Your task to perform on an android device: toggle translation in the chrome app Image 0: 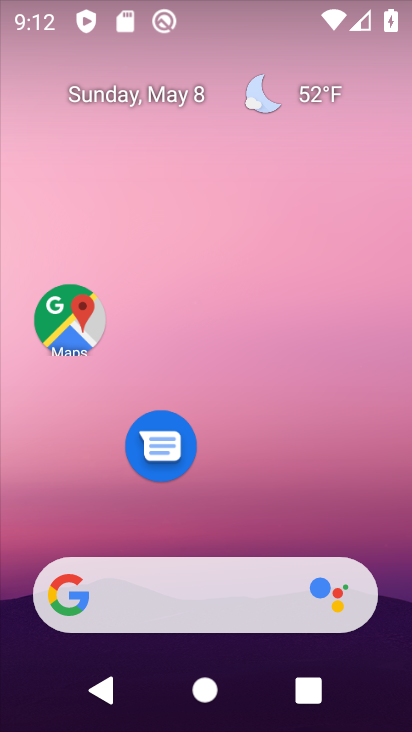
Step 0: drag from (291, 485) to (337, 0)
Your task to perform on an android device: toggle translation in the chrome app Image 1: 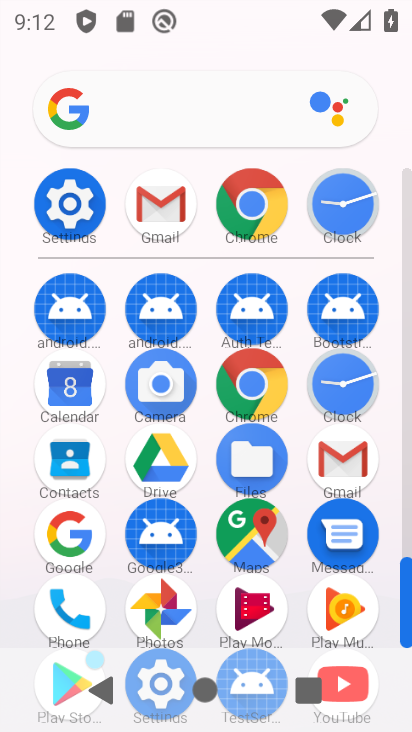
Step 1: click (266, 212)
Your task to perform on an android device: toggle translation in the chrome app Image 2: 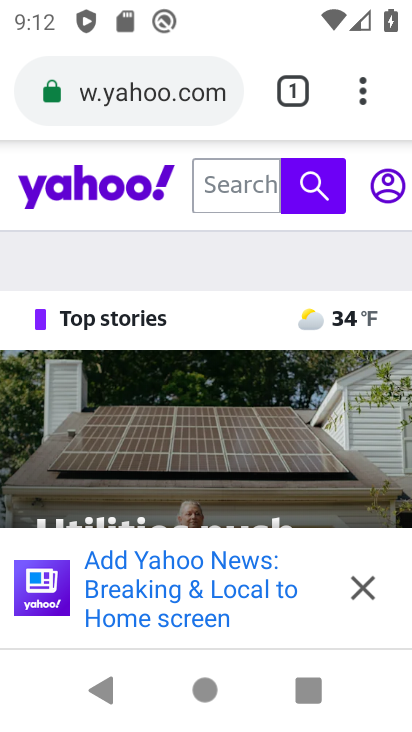
Step 2: drag from (358, 74) to (166, 467)
Your task to perform on an android device: toggle translation in the chrome app Image 3: 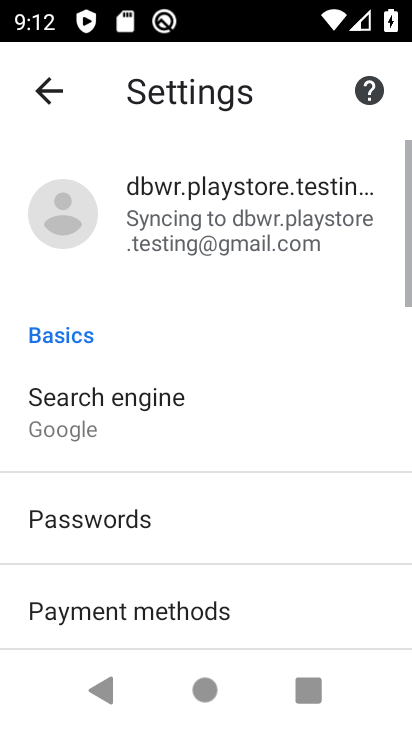
Step 3: drag from (215, 549) to (229, 147)
Your task to perform on an android device: toggle translation in the chrome app Image 4: 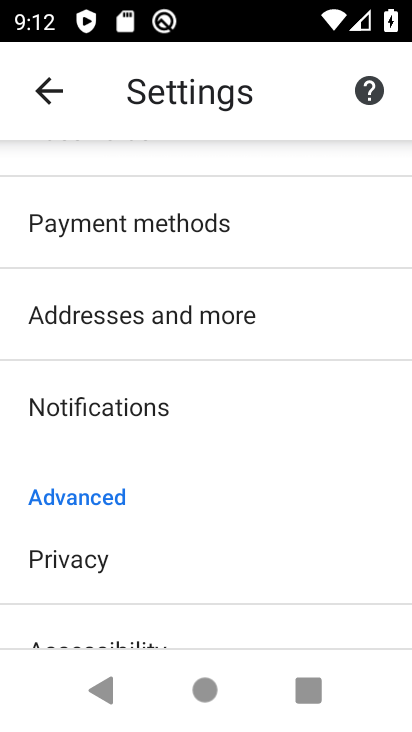
Step 4: drag from (236, 548) to (214, 229)
Your task to perform on an android device: toggle translation in the chrome app Image 5: 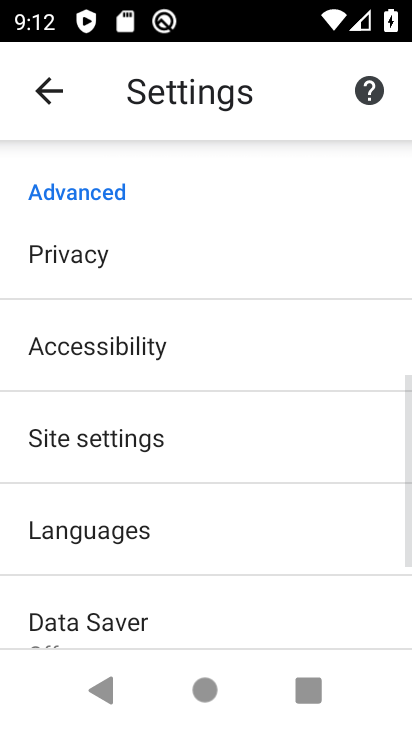
Step 5: drag from (266, 508) to (257, 258)
Your task to perform on an android device: toggle translation in the chrome app Image 6: 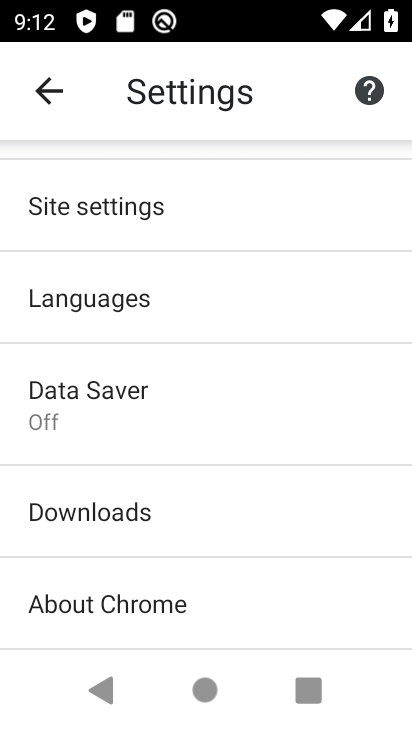
Step 6: click (196, 291)
Your task to perform on an android device: toggle translation in the chrome app Image 7: 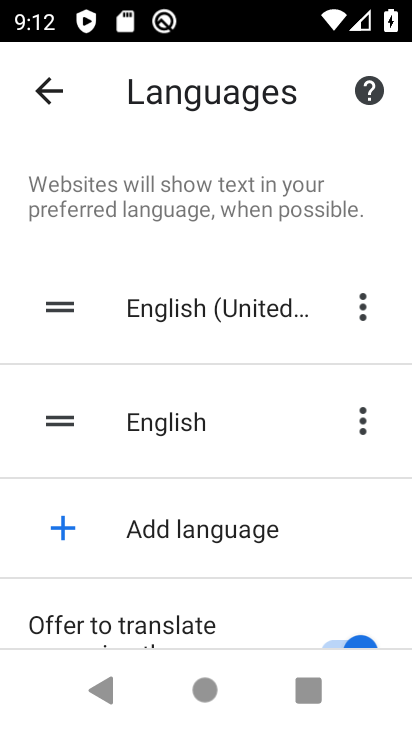
Step 7: click (345, 627)
Your task to perform on an android device: toggle translation in the chrome app Image 8: 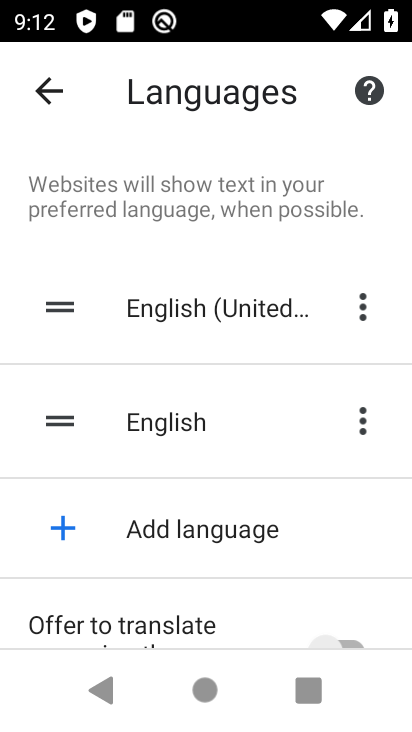
Step 8: task complete